Your task to perform on an android device: turn off notifications in google photos Image 0: 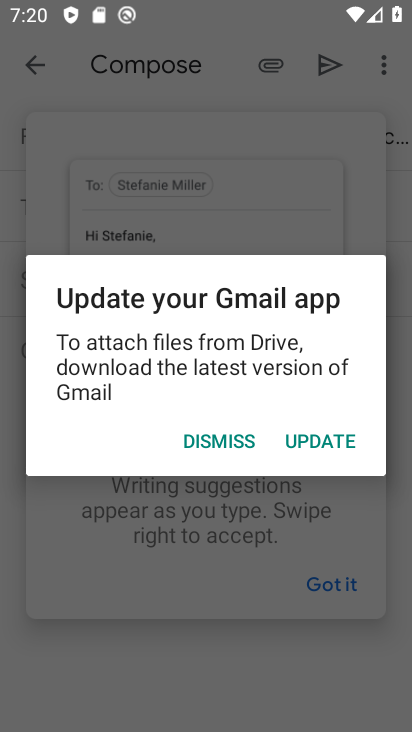
Step 0: press home button
Your task to perform on an android device: turn off notifications in google photos Image 1: 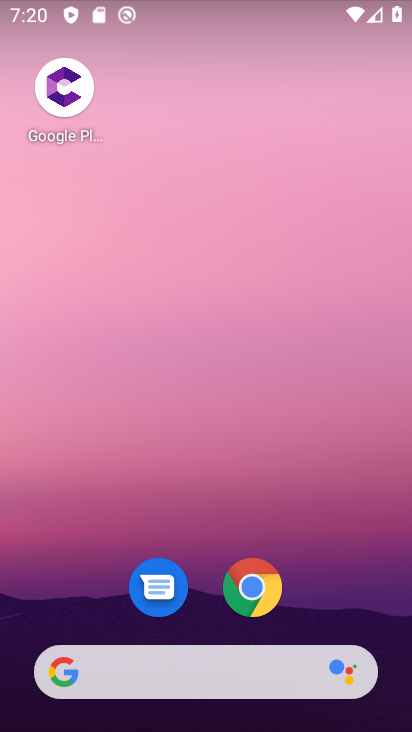
Step 1: drag from (377, 599) to (369, 97)
Your task to perform on an android device: turn off notifications in google photos Image 2: 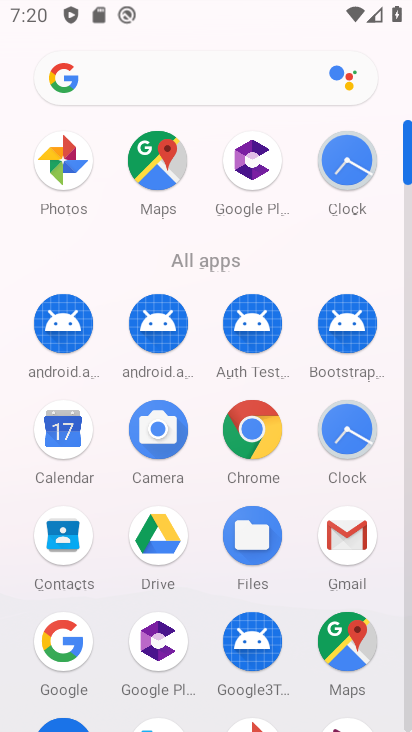
Step 2: drag from (295, 575) to (281, 349)
Your task to perform on an android device: turn off notifications in google photos Image 3: 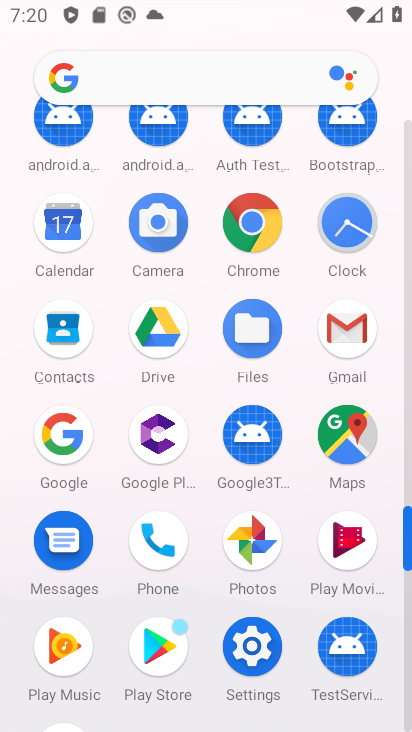
Step 3: click (255, 546)
Your task to perform on an android device: turn off notifications in google photos Image 4: 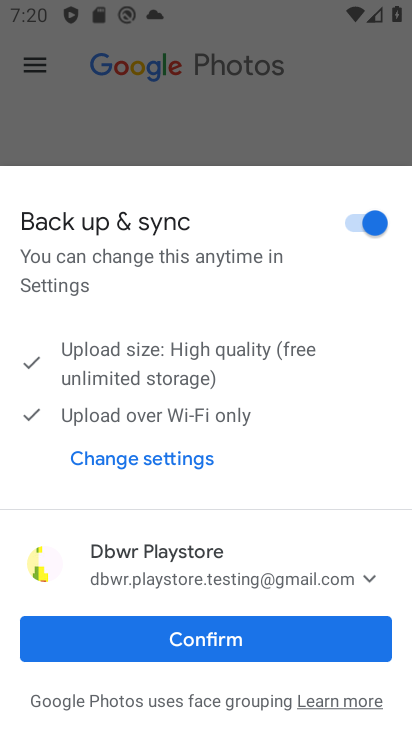
Step 4: click (263, 652)
Your task to perform on an android device: turn off notifications in google photos Image 5: 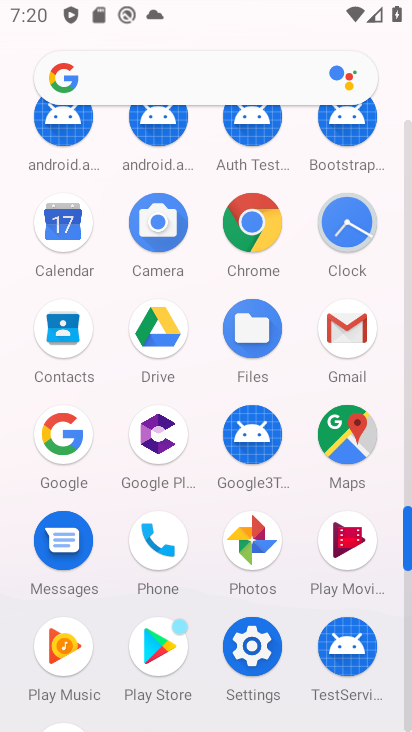
Step 5: click (270, 540)
Your task to perform on an android device: turn off notifications in google photos Image 6: 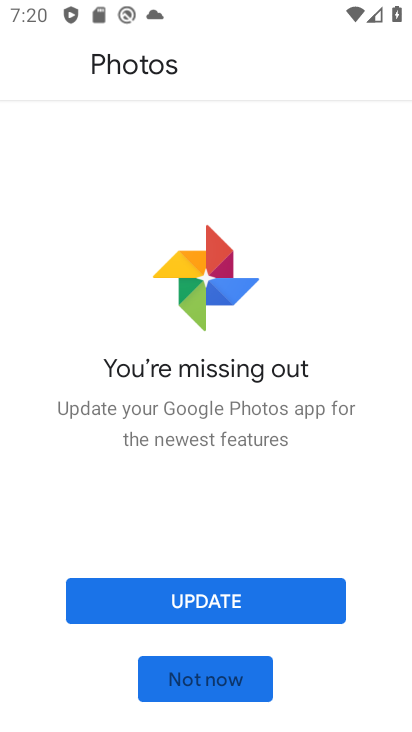
Step 6: click (298, 610)
Your task to perform on an android device: turn off notifications in google photos Image 7: 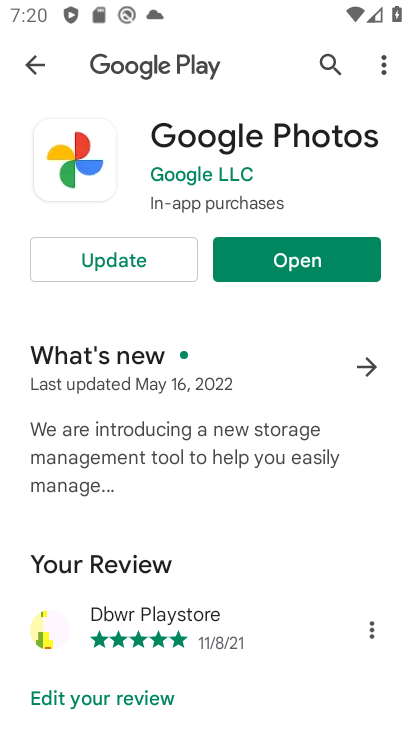
Step 7: click (114, 267)
Your task to perform on an android device: turn off notifications in google photos Image 8: 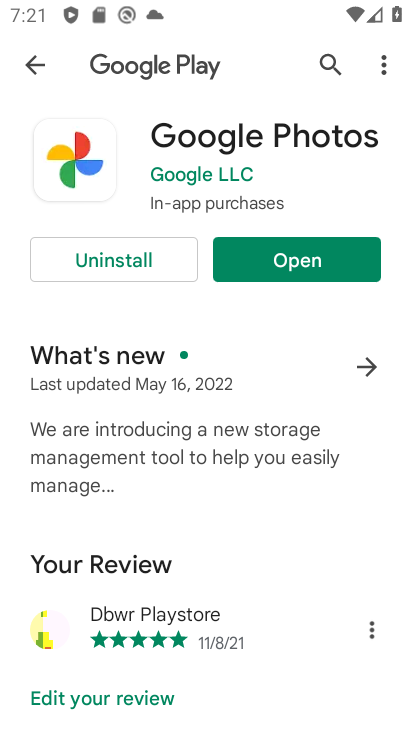
Step 8: click (319, 253)
Your task to perform on an android device: turn off notifications in google photos Image 9: 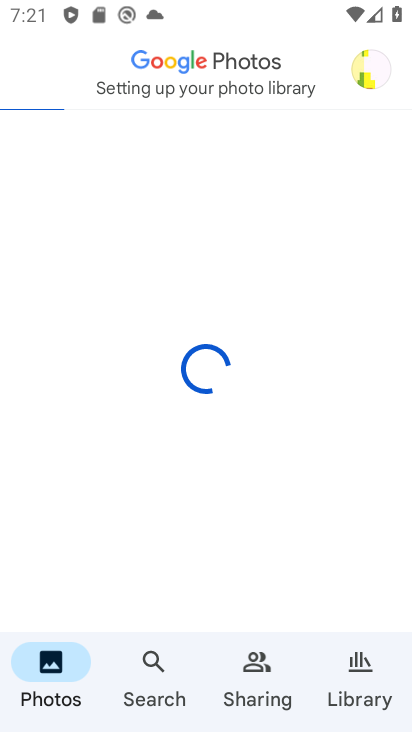
Step 9: click (371, 76)
Your task to perform on an android device: turn off notifications in google photos Image 10: 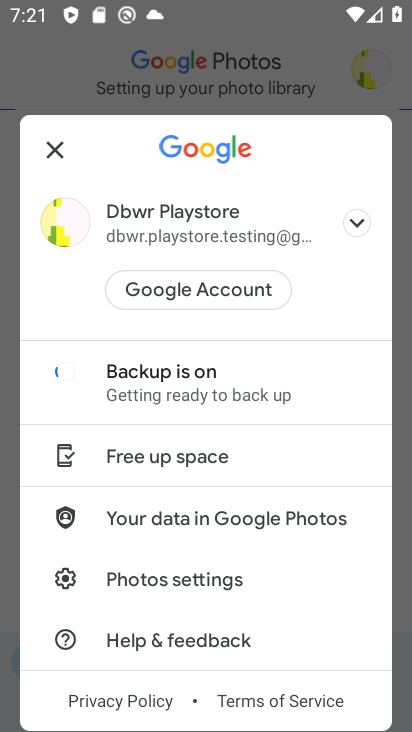
Step 10: click (238, 588)
Your task to perform on an android device: turn off notifications in google photos Image 11: 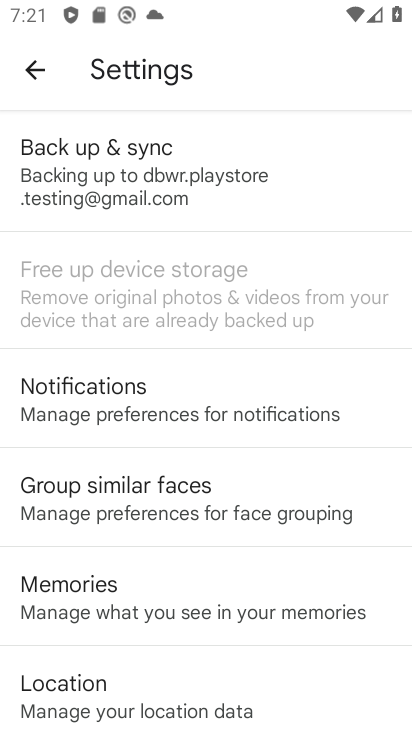
Step 11: click (244, 406)
Your task to perform on an android device: turn off notifications in google photos Image 12: 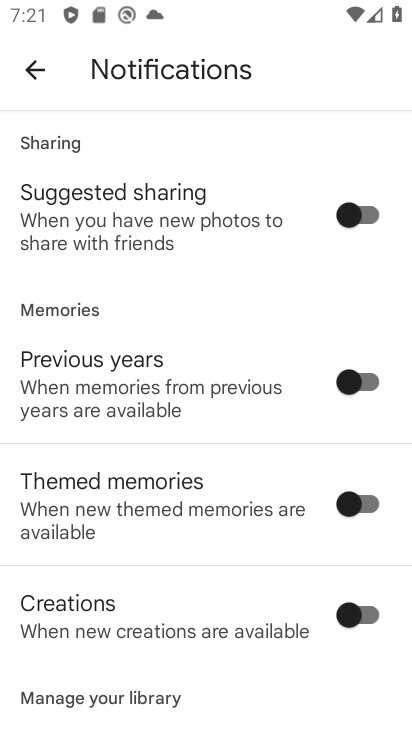
Step 12: drag from (269, 578) to (291, 293)
Your task to perform on an android device: turn off notifications in google photos Image 13: 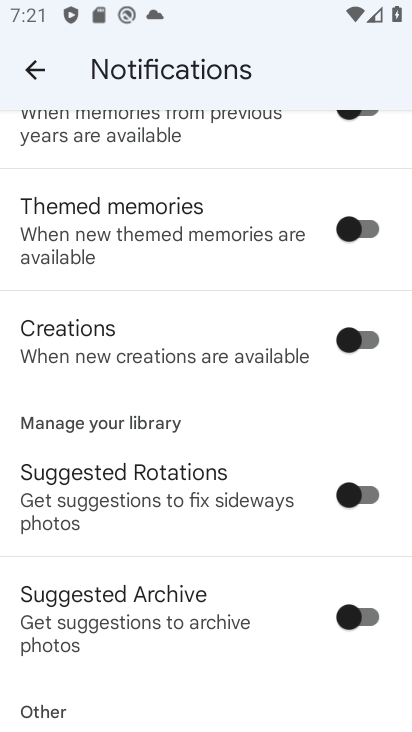
Step 13: drag from (287, 656) to (284, 363)
Your task to perform on an android device: turn off notifications in google photos Image 14: 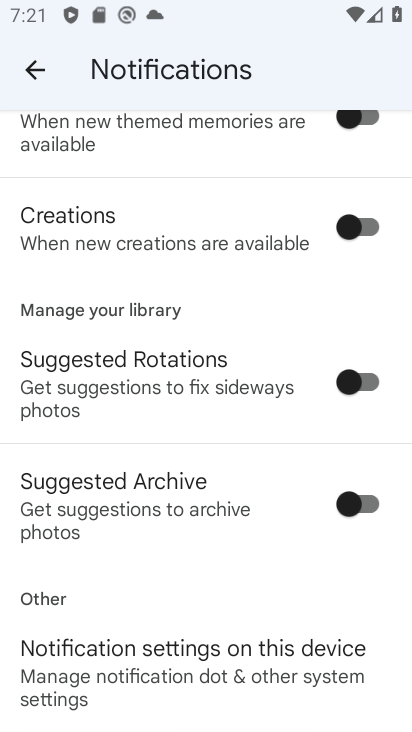
Step 14: click (261, 671)
Your task to perform on an android device: turn off notifications in google photos Image 15: 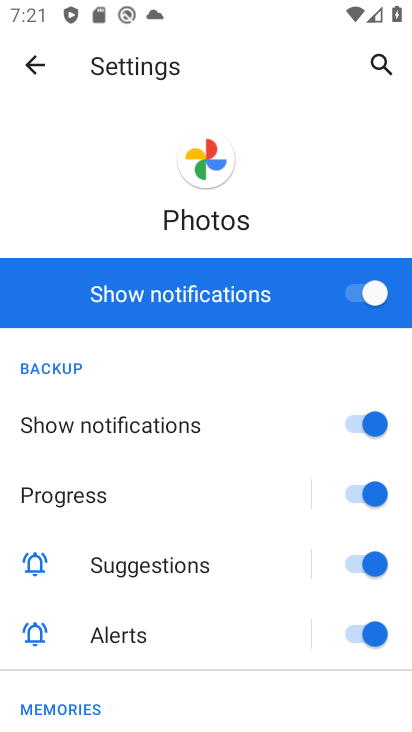
Step 15: click (382, 293)
Your task to perform on an android device: turn off notifications in google photos Image 16: 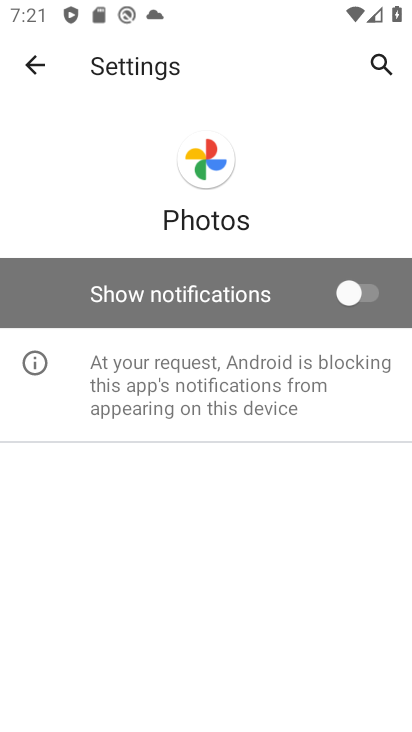
Step 16: task complete